Your task to perform on an android device: Show me popular videos on Youtube Image 0: 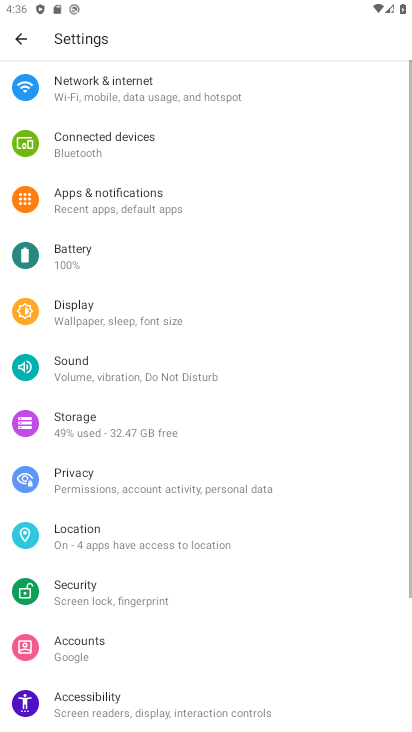
Step 0: press home button
Your task to perform on an android device: Show me popular videos on Youtube Image 1: 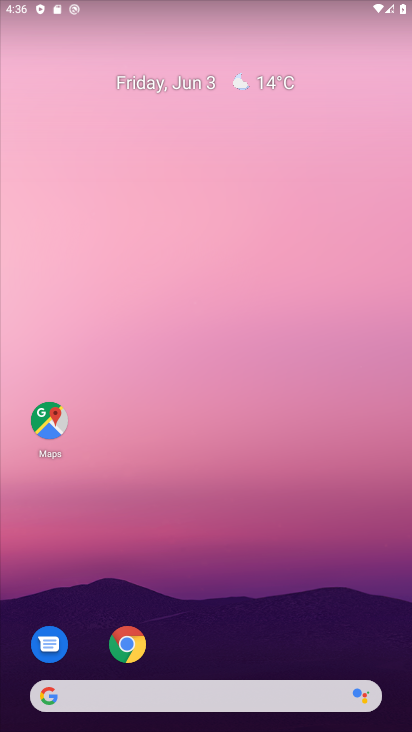
Step 1: drag from (236, 646) to (215, 20)
Your task to perform on an android device: Show me popular videos on Youtube Image 2: 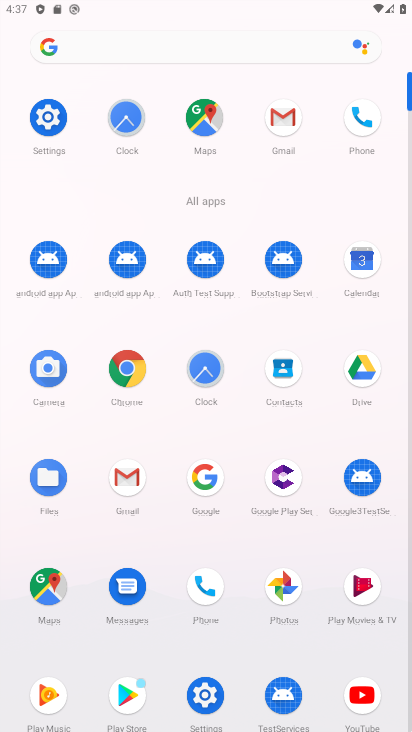
Step 2: click (379, 697)
Your task to perform on an android device: Show me popular videos on Youtube Image 3: 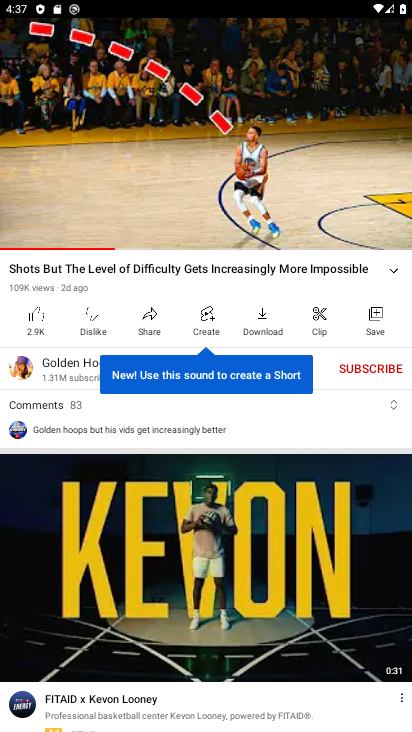
Step 3: click (209, 154)
Your task to perform on an android device: Show me popular videos on Youtube Image 4: 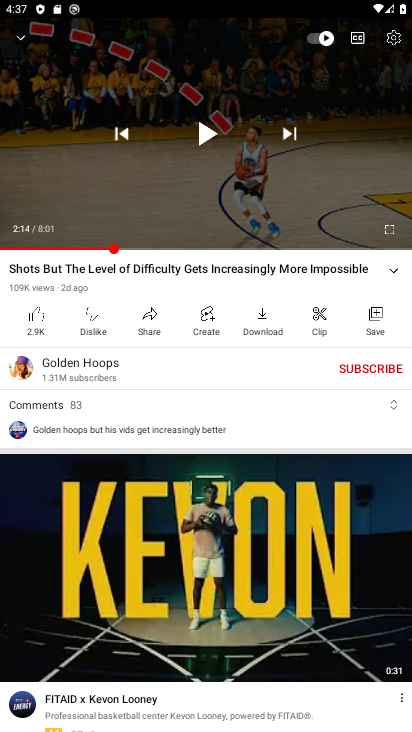
Step 4: click (29, 44)
Your task to perform on an android device: Show me popular videos on Youtube Image 5: 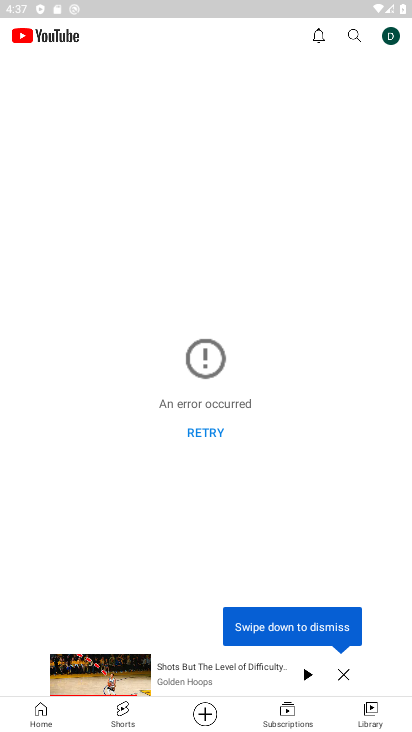
Step 5: click (367, 715)
Your task to perform on an android device: Show me popular videos on Youtube Image 6: 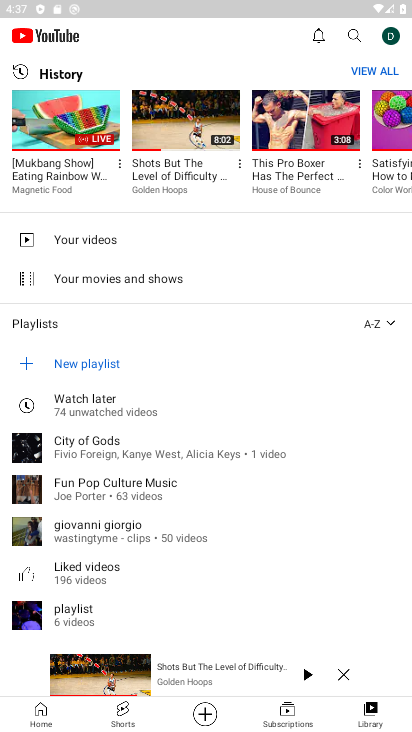
Step 6: click (33, 718)
Your task to perform on an android device: Show me popular videos on Youtube Image 7: 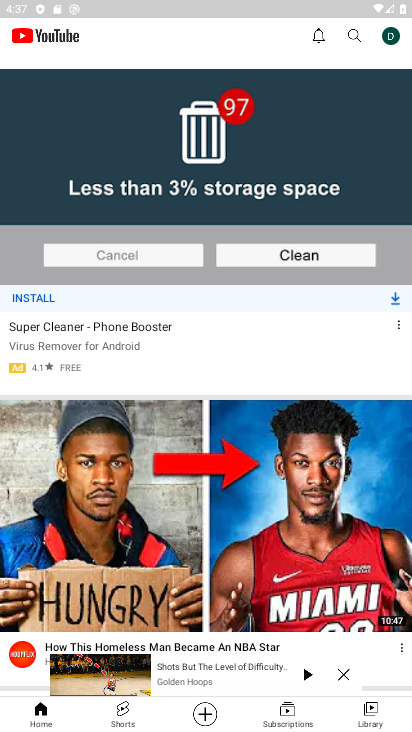
Step 7: click (69, 68)
Your task to perform on an android device: Show me popular videos on Youtube Image 8: 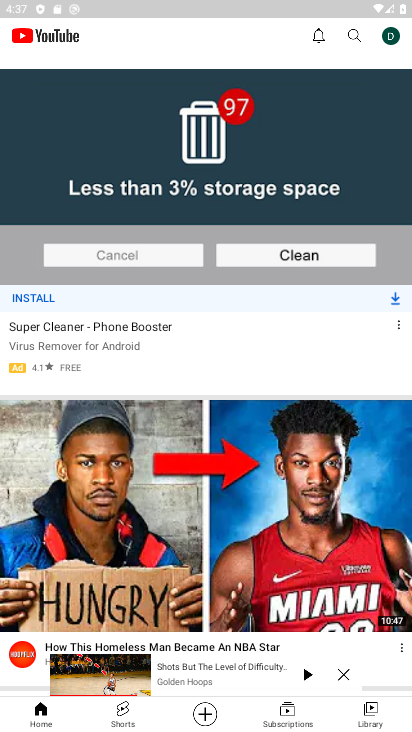
Step 8: drag from (91, 174) to (127, 611)
Your task to perform on an android device: Show me popular videos on Youtube Image 9: 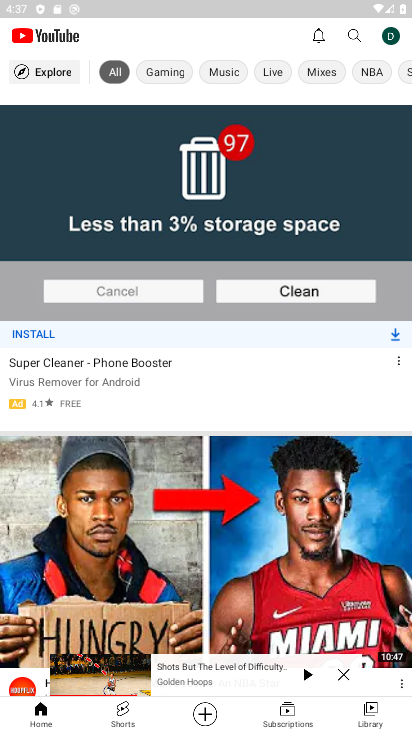
Step 9: click (64, 78)
Your task to perform on an android device: Show me popular videos on Youtube Image 10: 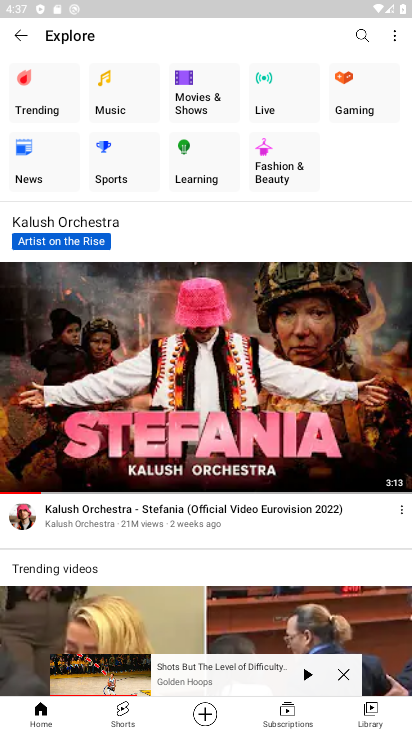
Step 10: click (44, 73)
Your task to perform on an android device: Show me popular videos on Youtube Image 11: 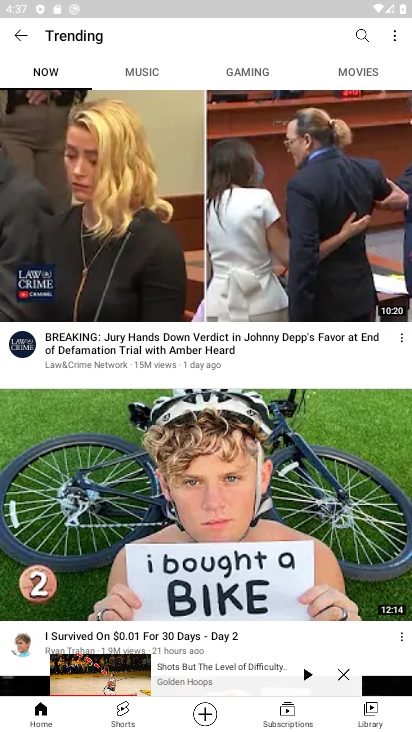
Step 11: task complete